Your task to perform on an android device: star an email in the gmail app Image 0: 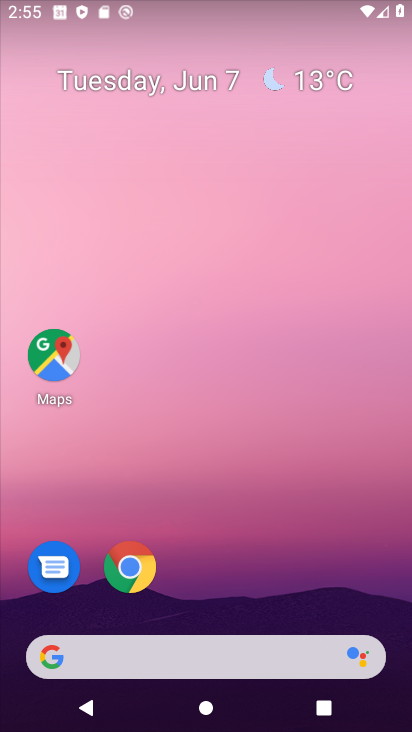
Step 0: press home button
Your task to perform on an android device: star an email in the gmail app Image 1: 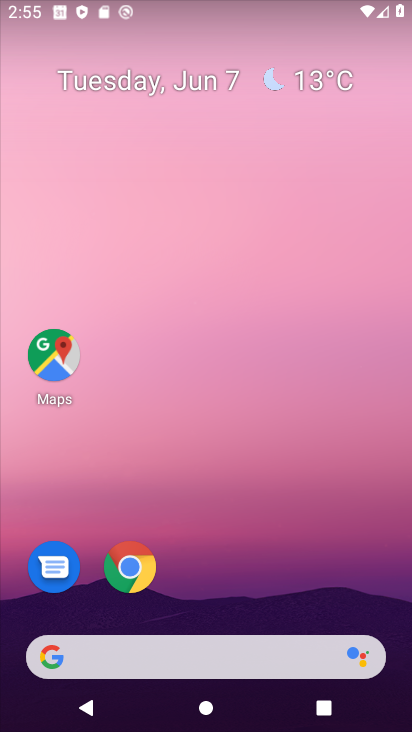
Step 1: drag from (349, 531) to (272, 236)
Your task to perform on an android device: star an email in the gmail app Image 2: 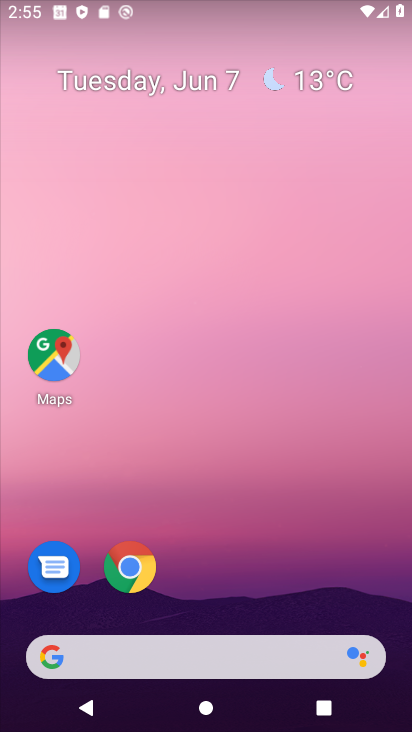
Step 2: drag from (261, 674) to (286, 326)
Your task to perform on an android device: star an email in the gmail app Image 3: 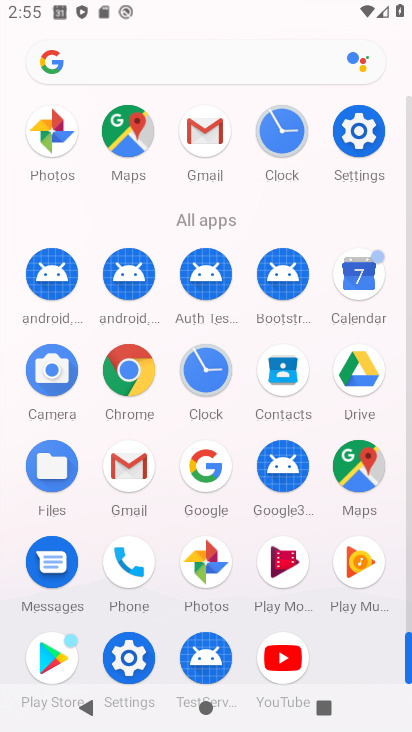
Step 3: click (148, 465)
Your task to perform on an android device: star an email in the gmail app Image 4: 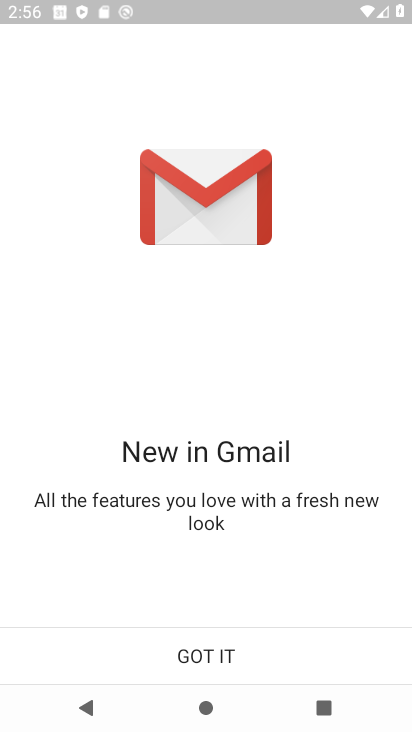
Step 4: click (209, 665)
Your task to perform on an android device: star an email in the gmail app Image 5: 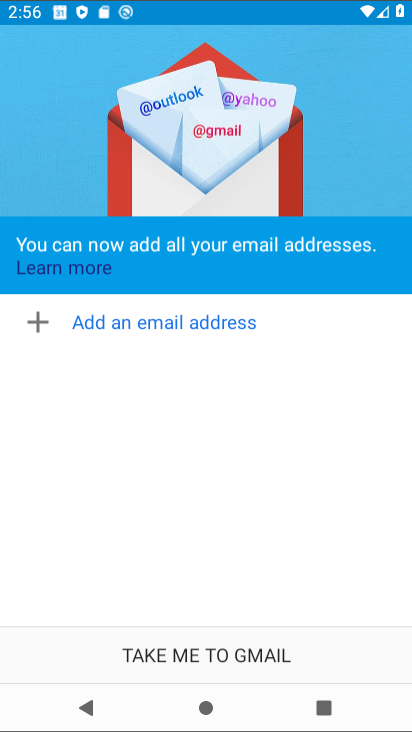
Step 5: click (209, 665)
Your task to perform on an android device: star an email in the gmail app Image 6: 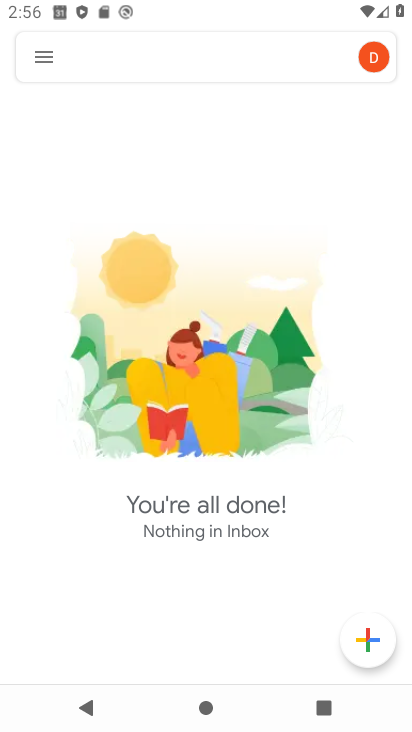
Step 6: click (62, 50)
Your task to perform on an android device: star an email in the gmail app Image 7: 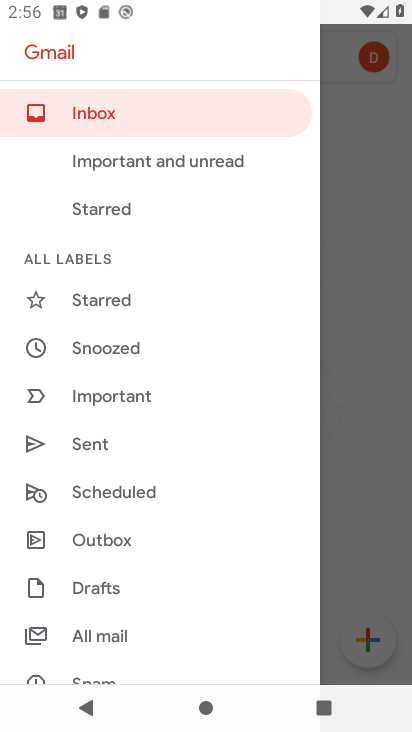
Step 7: task complete